Your task to perform on an android device: Open settings on Google Maps Image 0: 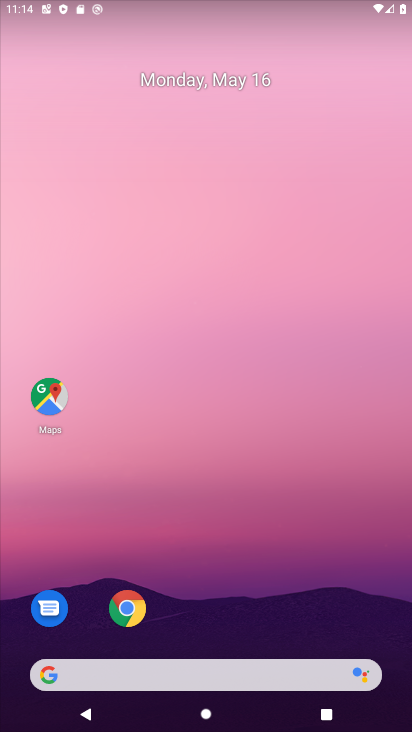
Step 0: press home button
Your task to perform on an android device: Open settings on Google Maps Image 1: 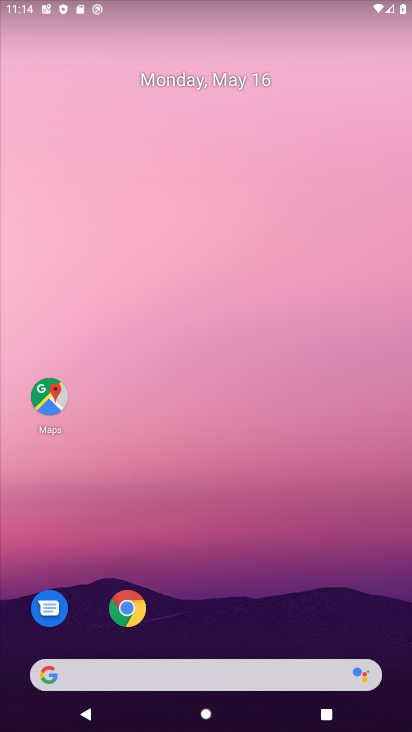
Step 1: drag from (186, 681) to (274, 212)
Your task to perform on an android device: Open settings on Google Maps Image 2: 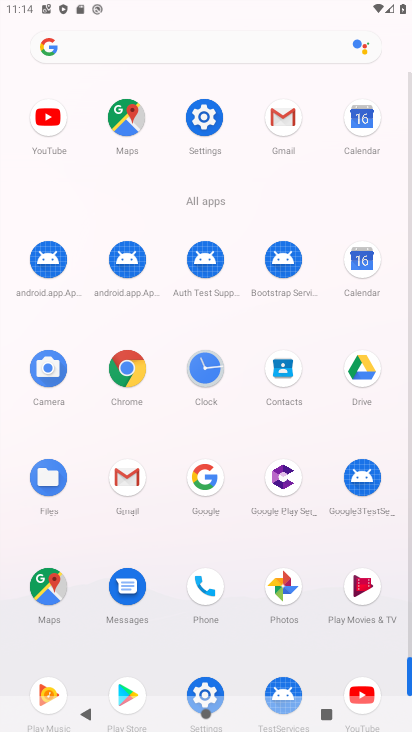
Step 2: click (49, 592)
Your task to perform on an android device: Open settings on Google Maps Image 3: 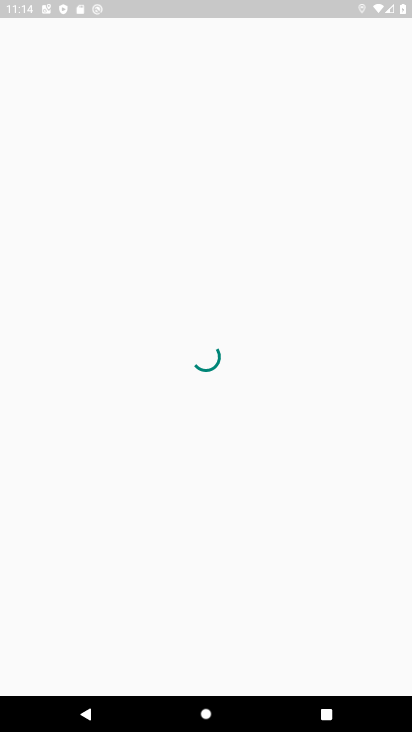
Step 3: click (27, 41)
Your task to perform on an android device: Open settings on Google Maps Image 4: 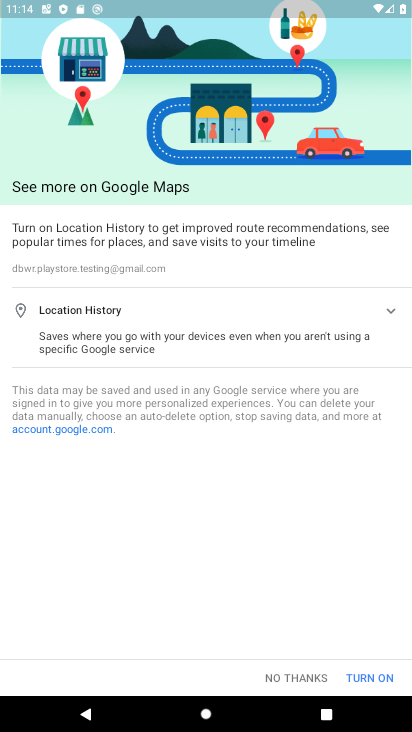
Step 4: click (271, 676)
Your task to perform on an android device: Open settings on Google Maps Image 5: 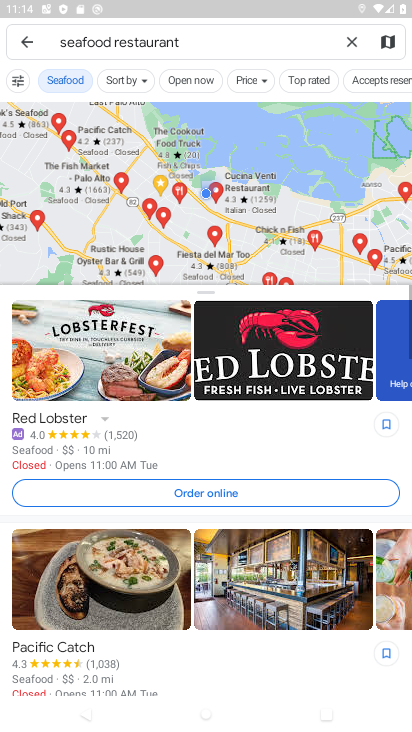
Step 5: click (32, 41)
Your task to perform on an android device: Open settings on Google Maps Image 6: 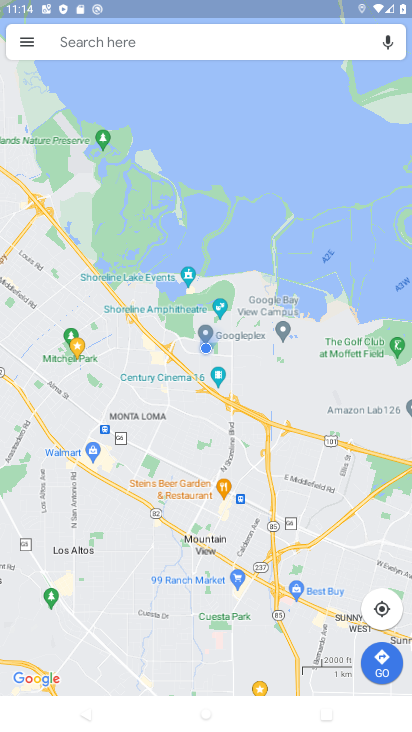
Step 6: click (31, 41)
Your task to perform on an android device: Open settings on Google Maps Image 7: 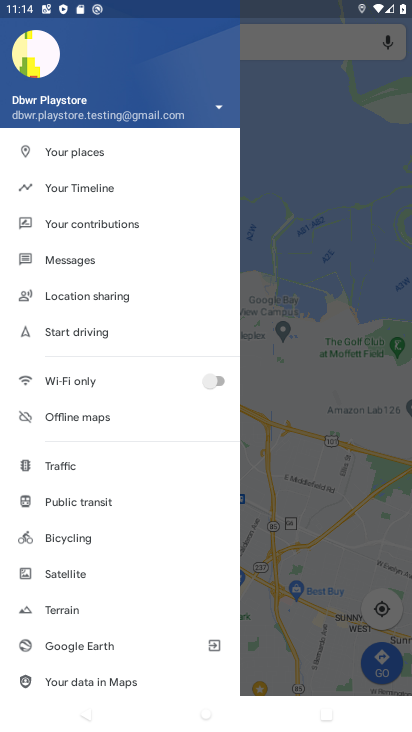
Step 7: drag from (135, 638) to (173, 301)
Your task to perform on an android device: Open settings on Google Maps Image 8: 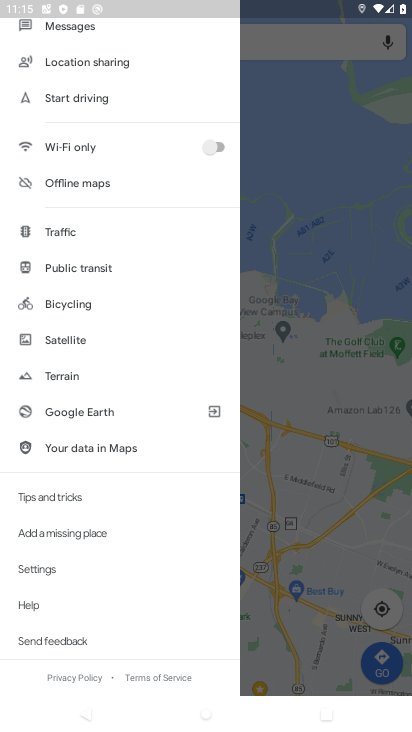
Step 8: click (47, 572)
Your task to perform on an android device: Open settings on Google Maps Image 9: 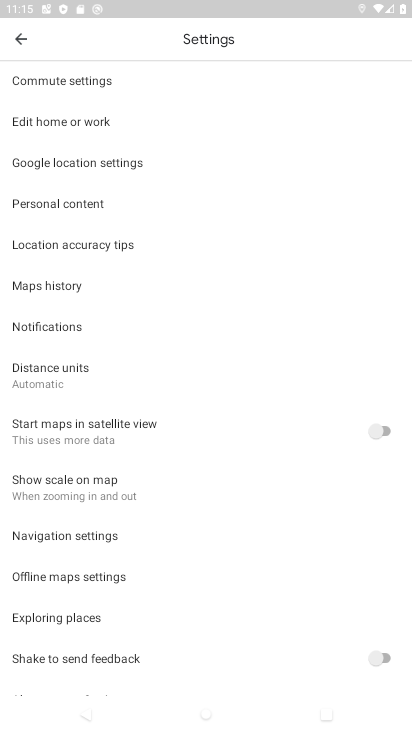
Step 9: task complete